Your task to perform on an android device: Open Chrome and go to settings Image 0: 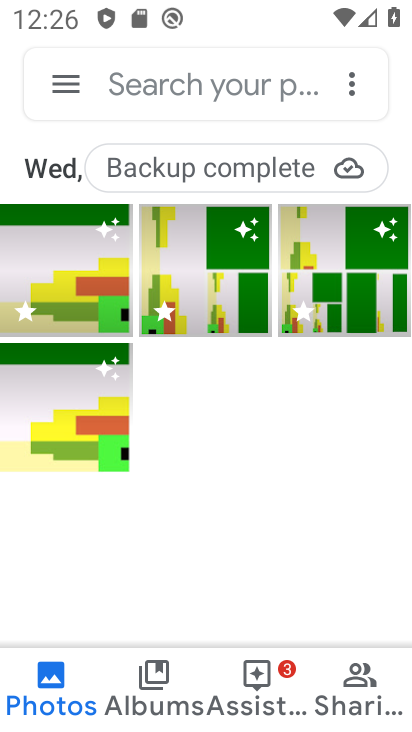
Step 0: press back button
Your task to perform on an android device: Open Chrome and go to settings Image 1: 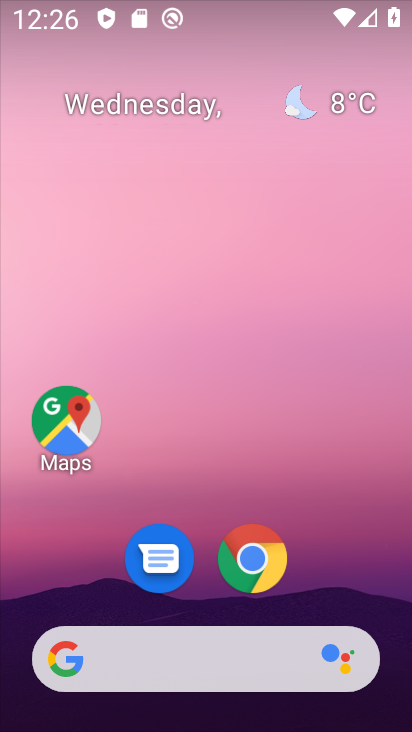
Step 1: drag from (318, 456) to (214, 24)
Your task to perform on an android device: Open Chrome and go to settings Image 2: 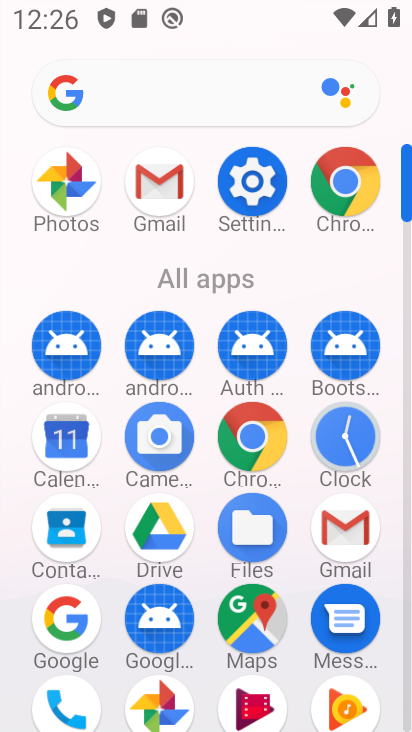
Step 2: click (342, 173)
Your task to perform on an android device: Open Chrome and go to settings Image 3: 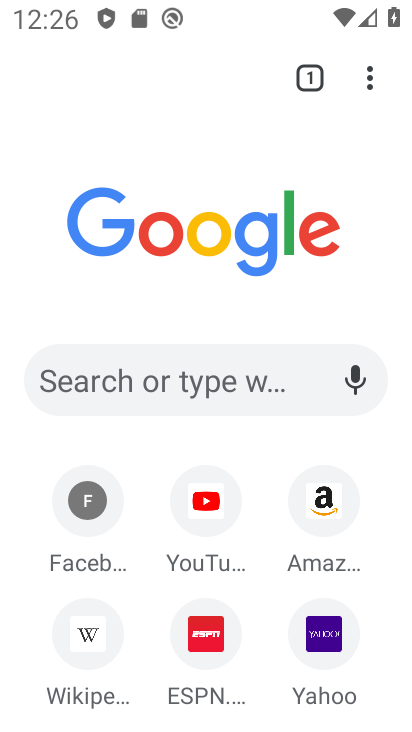
Step 3: task complete